Your task to perform on an android device: Check the weather Image 0: 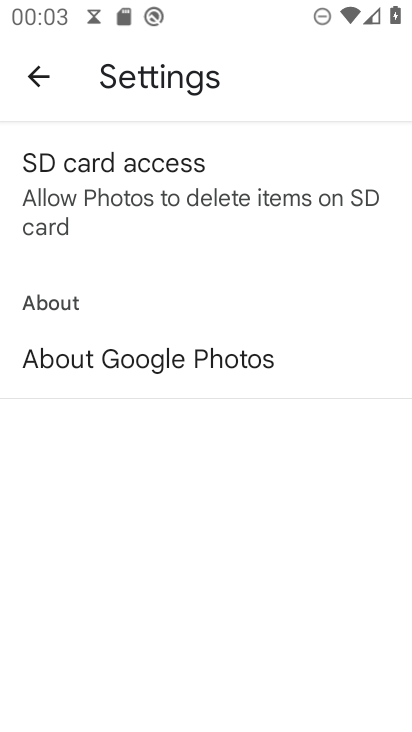
Step 0: press home button
Your task to perform on an android device: Check the weather Image 1: 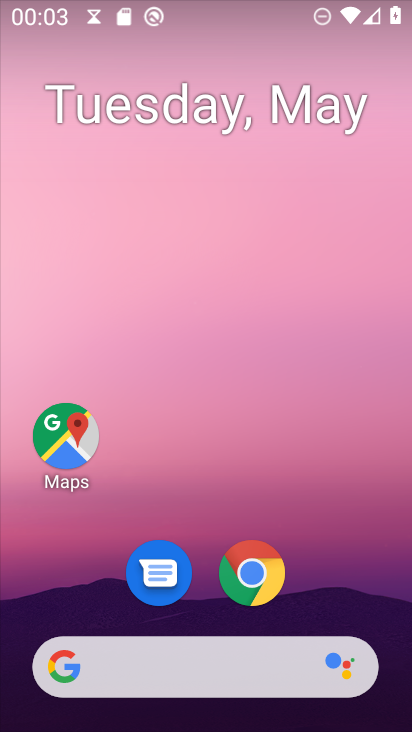
Step 1: drag from (340, 561) to (235, 37)
Your task to perform on an android device: Check the weather Image 2: 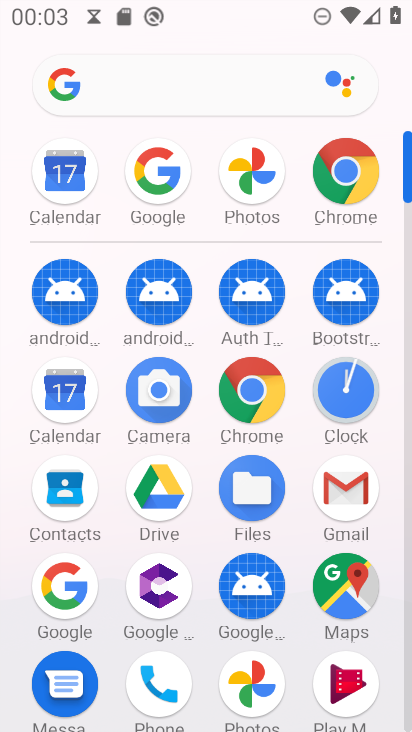
Step 2: click (70, 580)
Your task to perform on an android device: Check the weather Image 3: 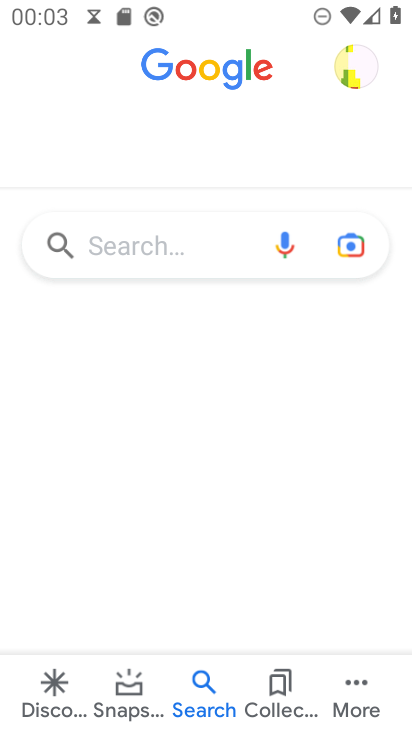
Step 3: drag from (223, 545) to (208, 145)
Your task to perform on an android device: Check the weather Image 4: 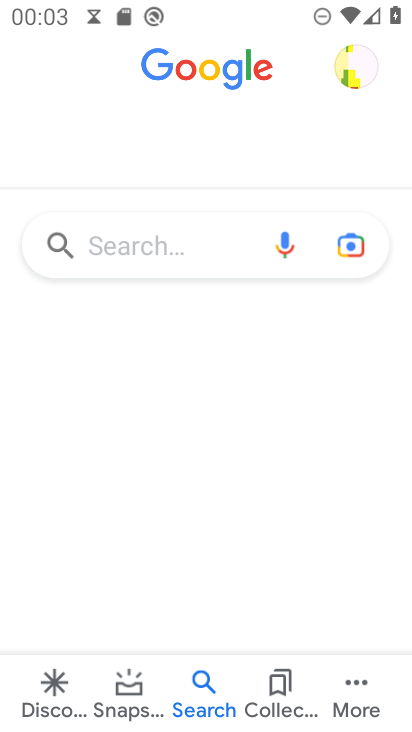
Step 4: click (162, 266)
Your task to perform on an android device: Check the weather Image 5: 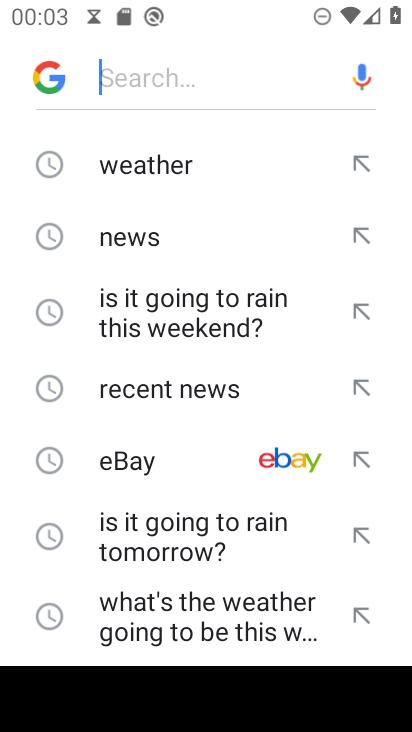
Step 5: click (147, 167)
Your task to perform on an android device: Check the weather Image 6: 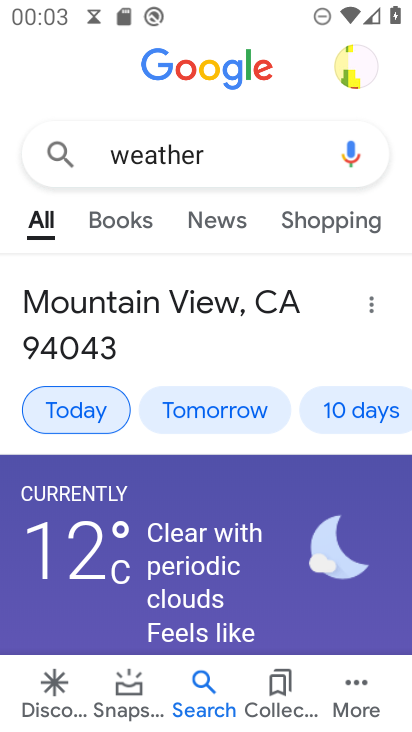
Step 6: task complete